Your task to perform on an android device: refresh tabs in the chrome app Image 0: 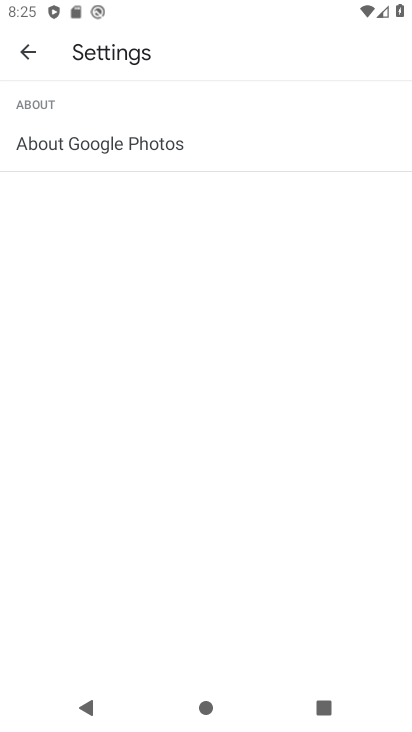
Step 0: press home button
Your task to perform on an android device: refresh tabs in the chrome app Image 1: 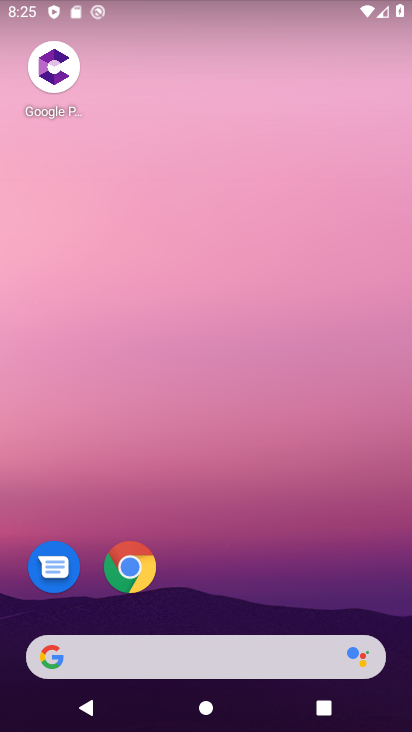
Step 1: click (131, 568)
Your task to perform on an android device: refresh tabs in the chrome app Image 2: 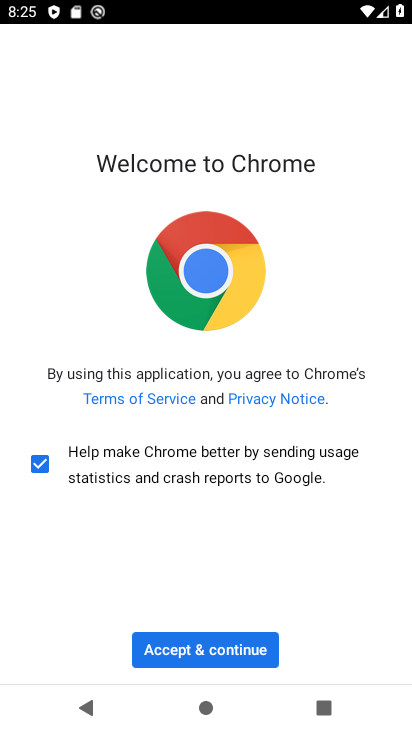
Step 2: click (177, 642)
Your task to perform on an android device: refresh tabs in the chrome app Image 3: 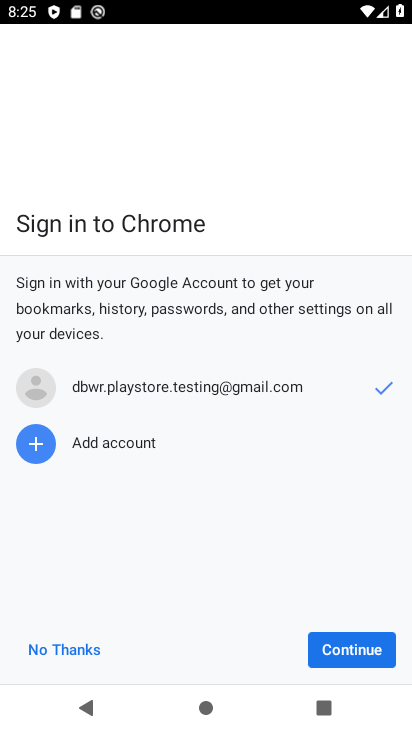
Step 3: click (355, 639)
Your task to perform on an android device: refresh tabs in the chrome app Image 4: 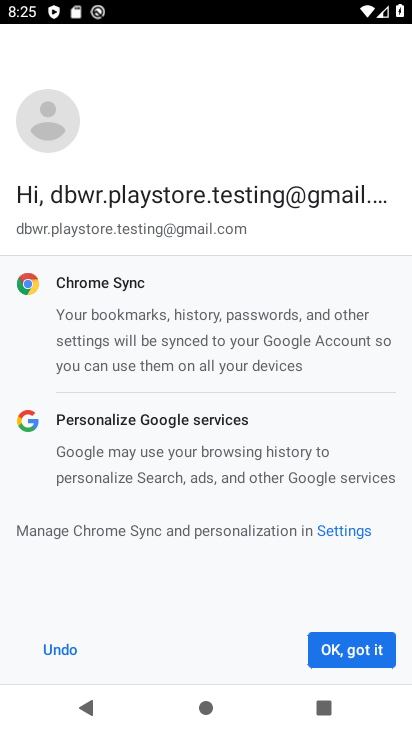
Step 4: click (353, 651)
Your task to perform on an android device: refresh tabs in the chrome app Image 5: 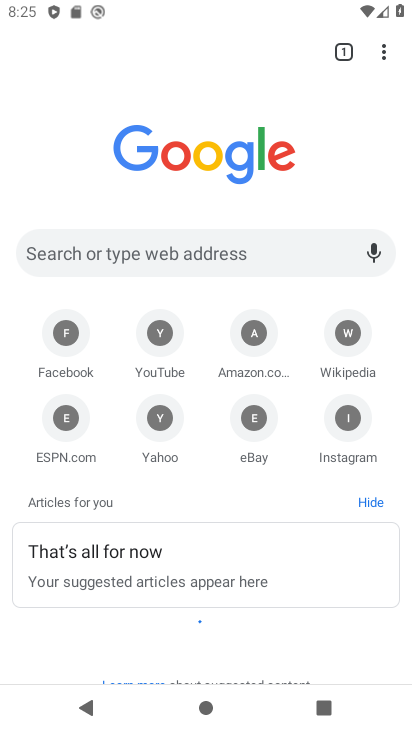
Step 5: click (382, 53)
Your task to perform on an android device: refresh tabs in the chrome app Image 6: 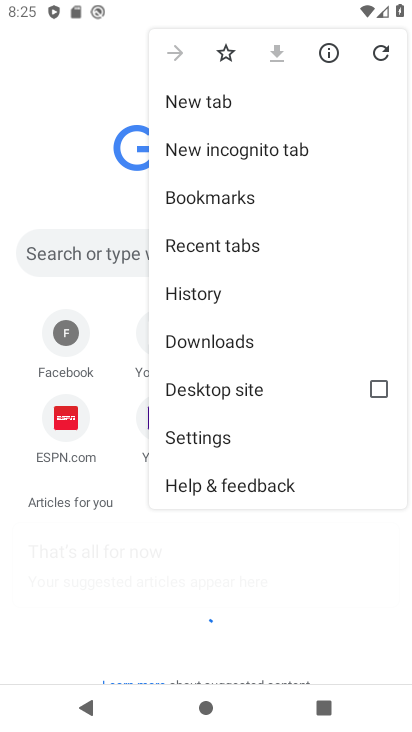
Step 6: click (376, 52)
Your task to perform on an android device: refresh tabs in the chrome app Image 7: 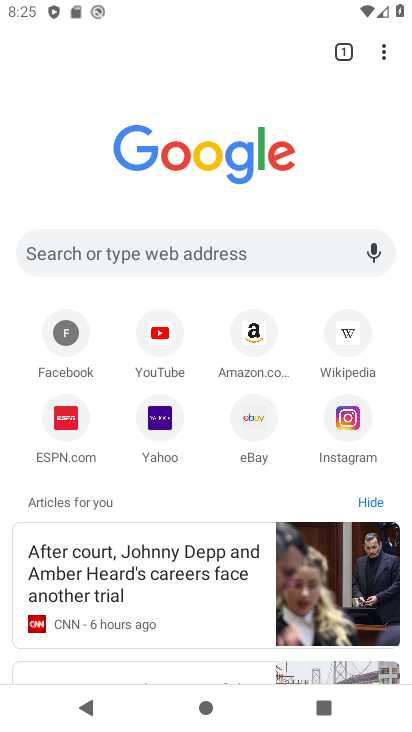
Step 7: task complete